Your task to perform on an android device: turn on location history Image 0: 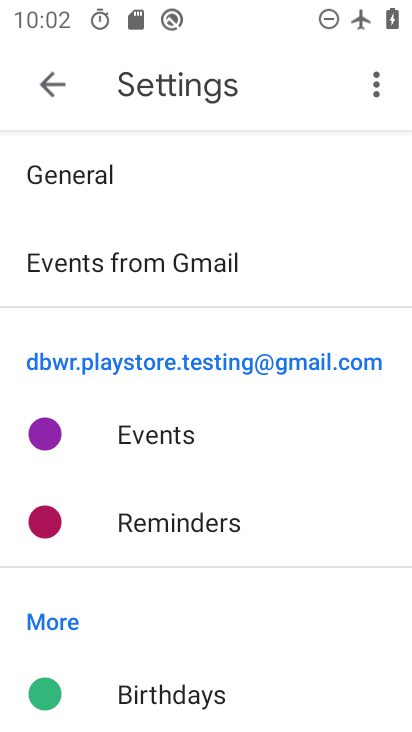
Step 0: press home button
Your task to perform on an android device: turn on location history Image 1: 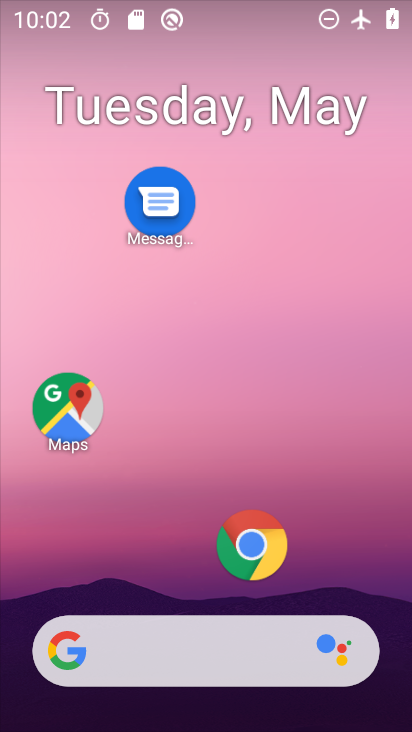
Step 1: drag from (199, 576) to (208, 220)
Your task to perform on an android device: turn on location history Image 2: 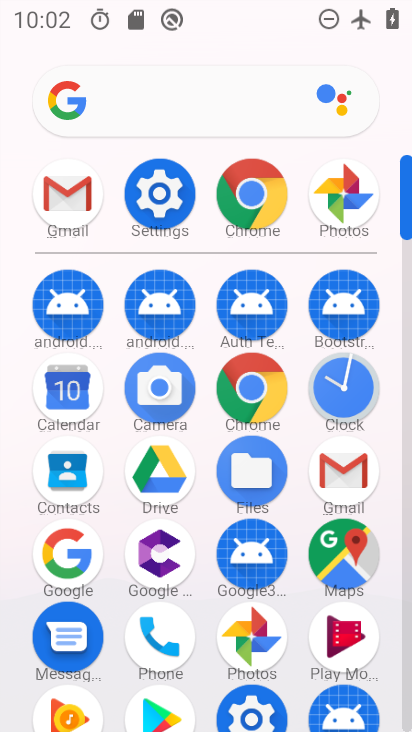
Step 2: click (167, 182)
Your task to perform on an android device: turn on location history Image 3: 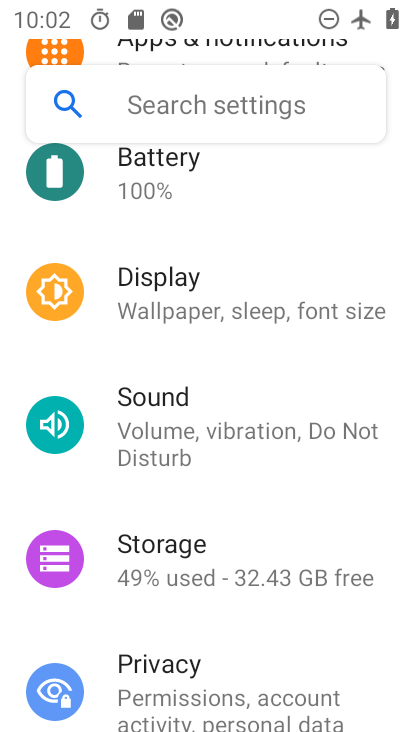
Step 3: drag from (203, 592) to (221, 192)
Your task to perform on an android device: turn on location history Image 4: 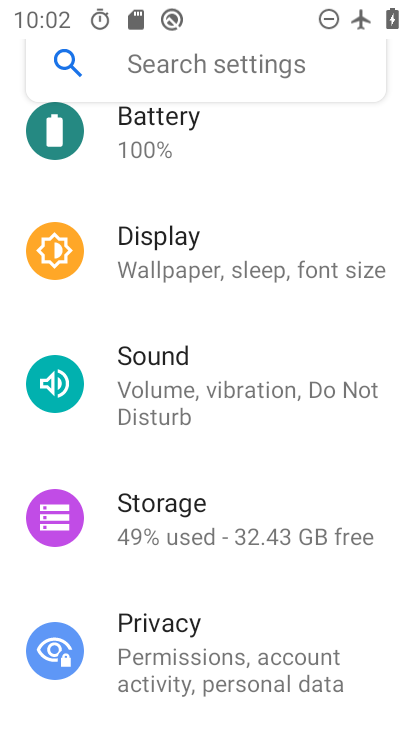
Step 4: drag from (235, 674) to (238, 324)
Your task to perform on an android device: turn on location history Image 5: 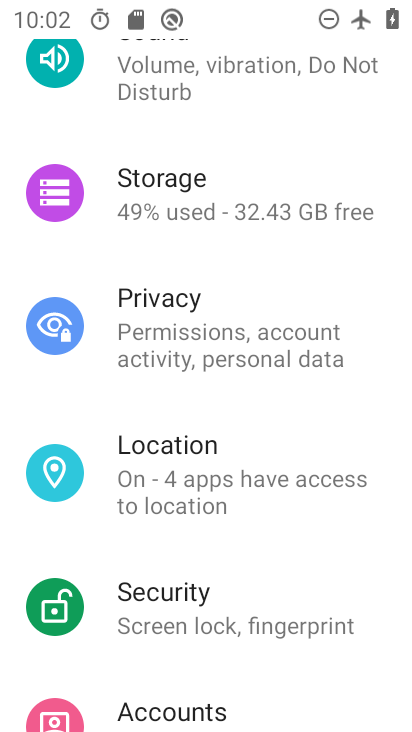
Step 5: click (189, 473)
Your task to perform on an android device: turn on location history Image 6: 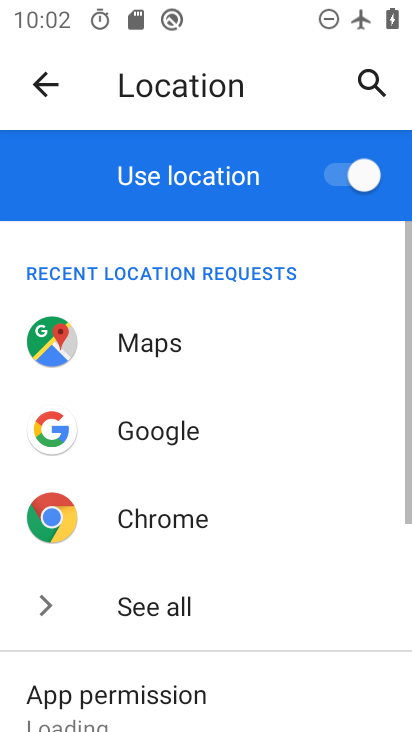
Step 6: drag from (224, 594) to (210, 301)
Your task to perform on an android device: turn on location history Image 7: 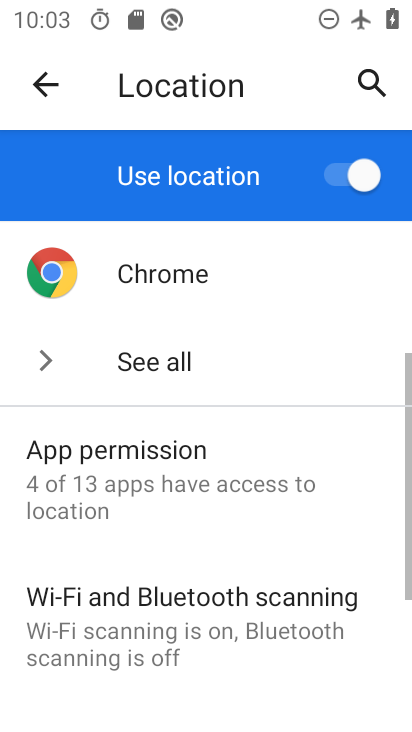
Step 7: drag from (211, 617) to (239, 317)
Your task to perform on an android device: turn on location history Image 8: 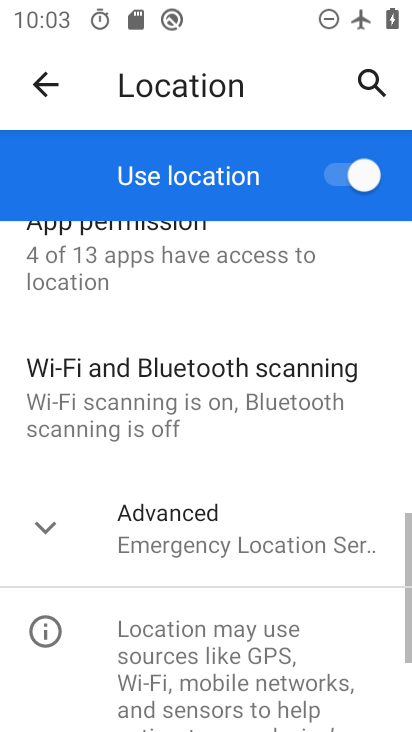
Step 8: drag from (236, 647) to (240, 435)
Your task to perform on an android device: turn on location history Image 9: 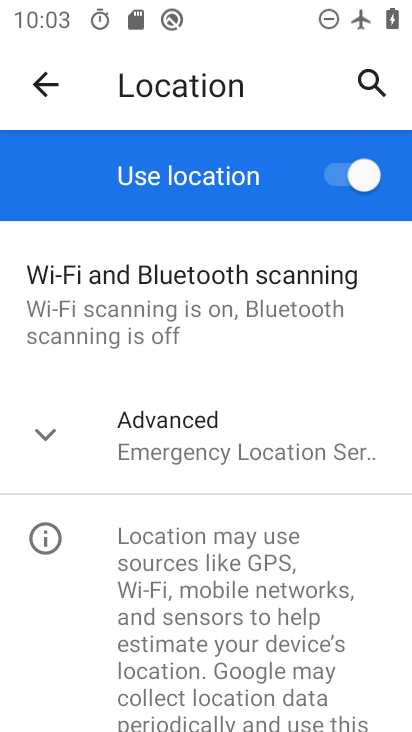
Step 9: click (175, 427)
Your task to perform on an android device: turn on location history Image 10: 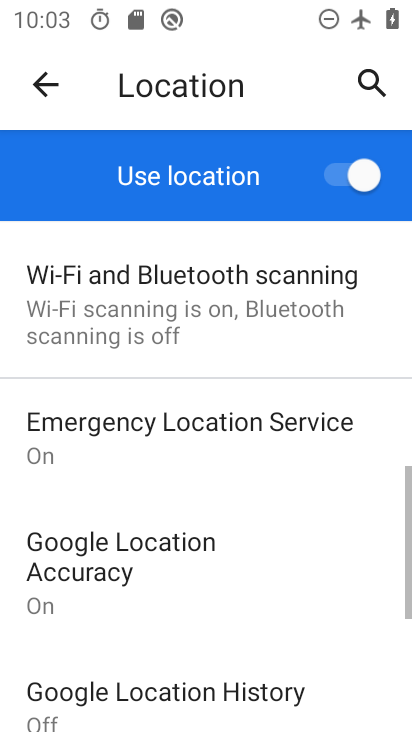
Step 10: drag from (244, 658) to (245, 501)
Your task to perform on an android device: turn on location history Image 11: 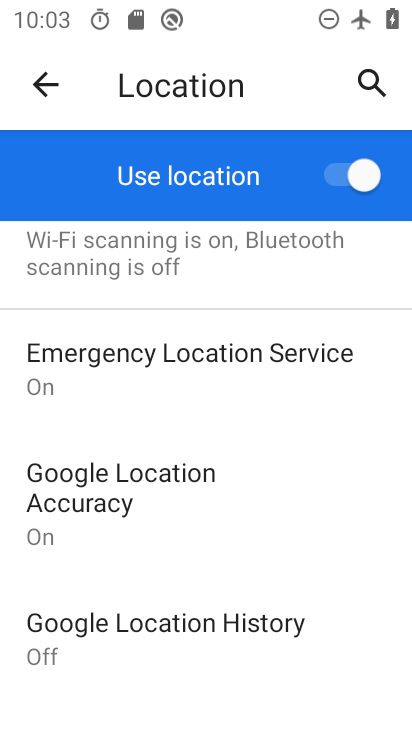
Step 11: click (228, 637)
Your task to perform on an android device: turn on location history Image 12: 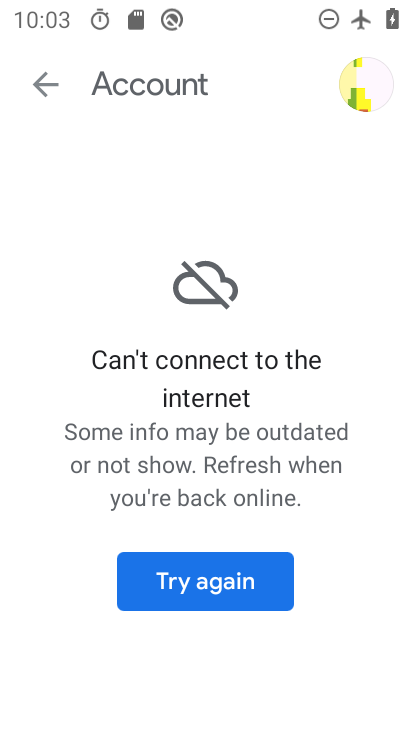
Step 12: task complete